Your task to perform on an android device: stop showing notifications on the lock screen Image 0: 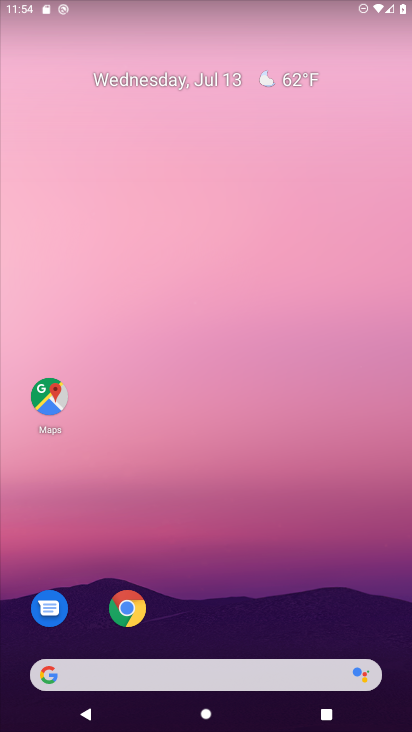
Step 0: drag from (234, 689) to (203, 156)
Your task to perform on an android device: stop showing notifications on the lock screen Image 1: 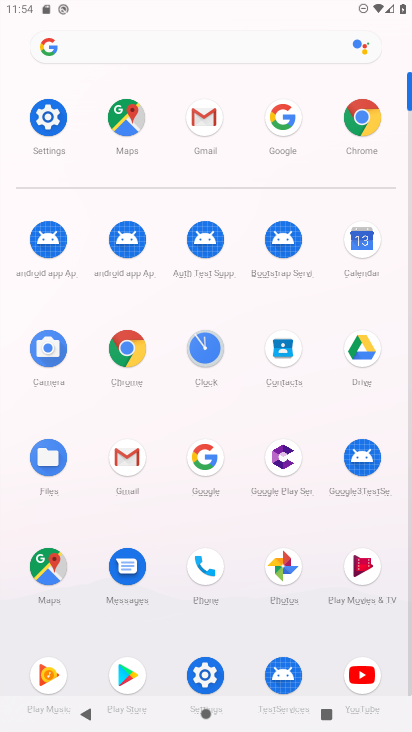
Step 1: click (50, 120)
Your task to perform on an android device: stop showing notifications on the lock screen Image 2: 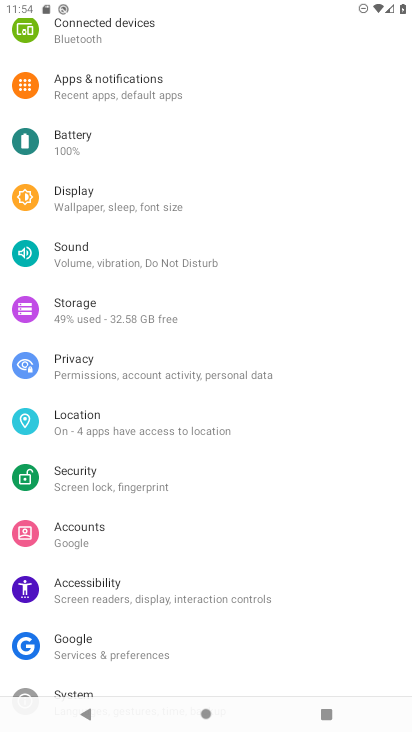
Step 2: click (95, 78)
Your task to perform on an android device: stop showing notifications on the lock screen Image 3: 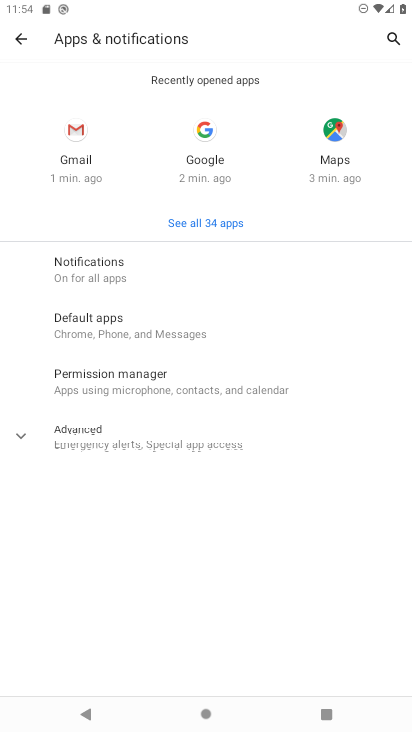
Step 3: click (72, 277)
Your task to perform on an android device: stop showing notifications on the lock screen Image 4: 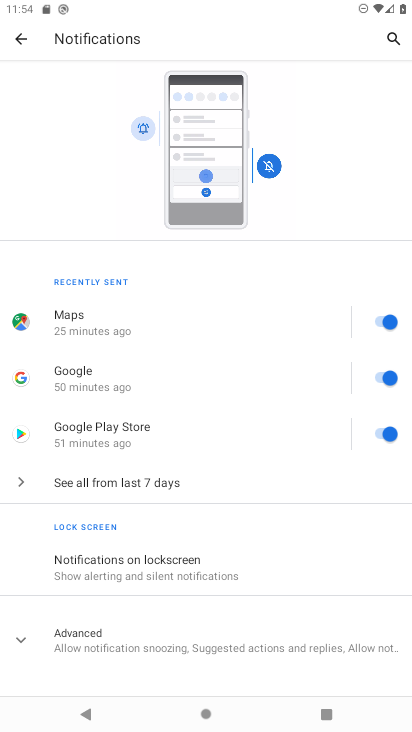
Step 4: click (144, 572)
Your task to perform on an android device: stop showing notifications on the lock screen Image 5: 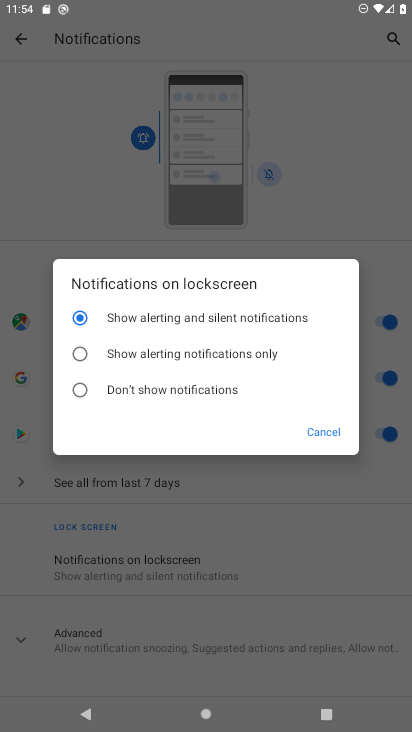
Step 5: click (81, 393)
Your task to perform on an android device: stop showing notifications on the lock screen Image 6: 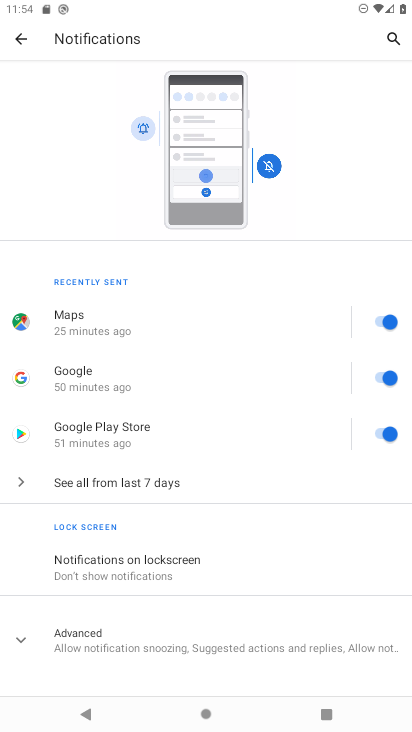
Step 6: task complete